Your task to perform on an android device: Open CNN.com Image 0: 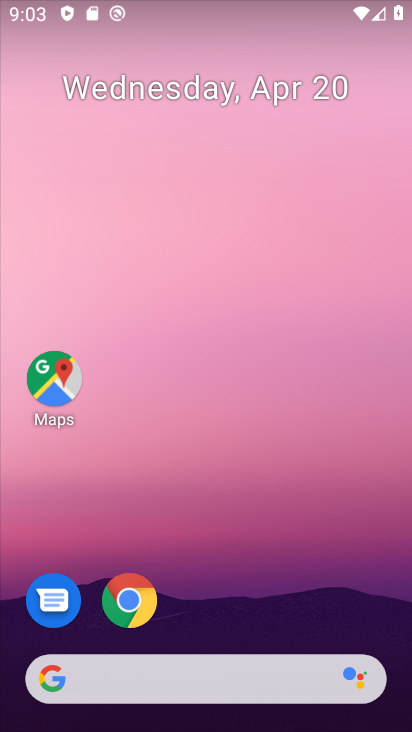
Step 0: click (134, 603)
Your task to perform on an android device: Open CNN.com Image 1: 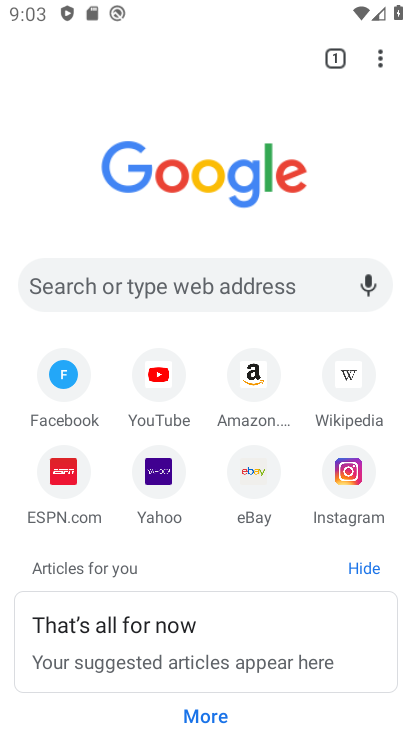
Step 1: click (152, 301)
Your task to perform on an android device: Open CNN.com Image 2: 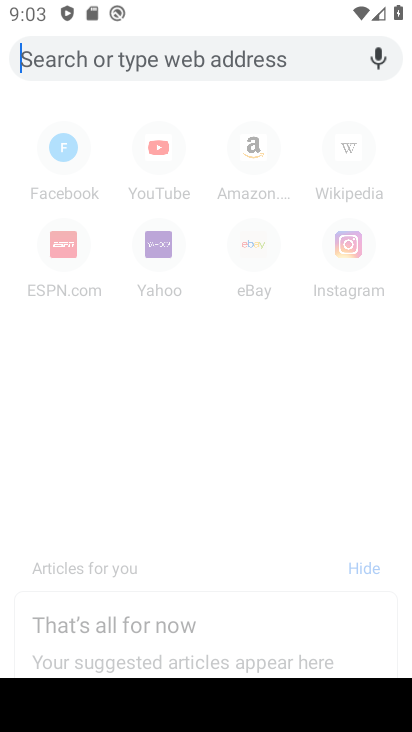
Step 2: type "cnn.com"
Your task to perform on an android device: Open CNN.com Image 3: 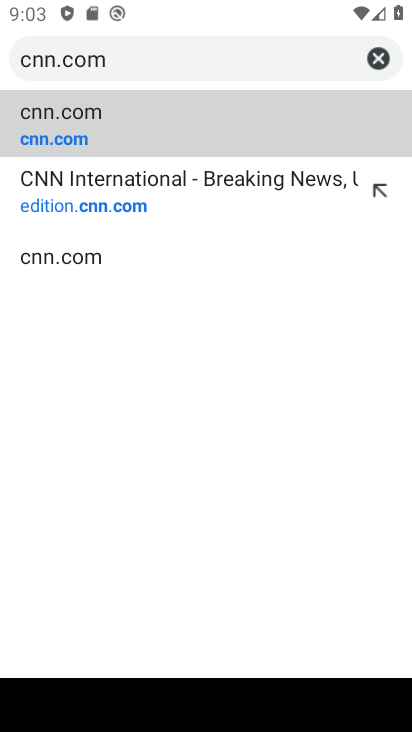
Step 3: click (108, 255)
Your task to perform on an android device: Open CNN.com Image 4: 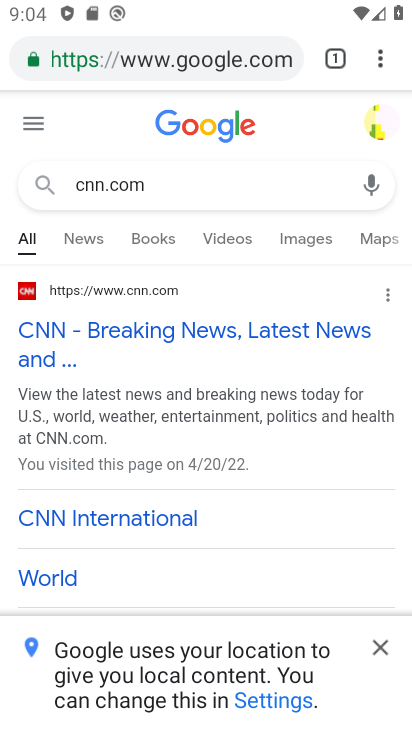
Step 4: task complete